Your task to perform on an android device: delete browsing data in the chrome app Image 0: 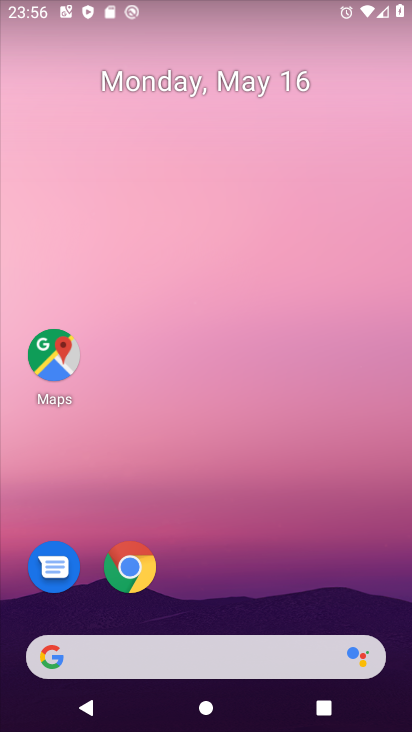
Step 0: click (126, 569)
Your task to perform on an android device: delete browsing data in the chrome app Image 1: 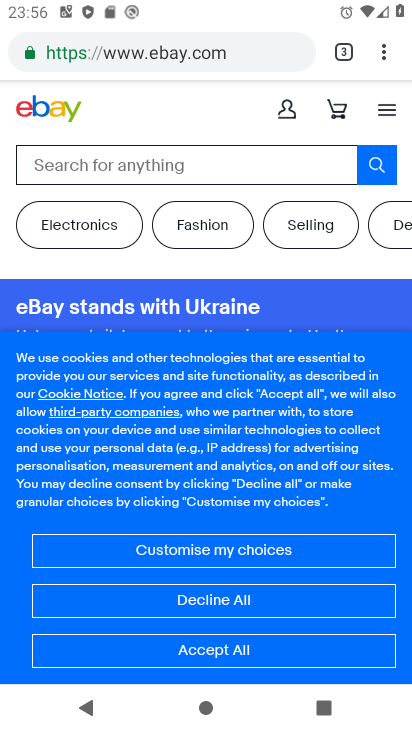
Step 1: click (382, 51)
Your task to perform on an android device: delete browsing data in the chrome app Image 2: 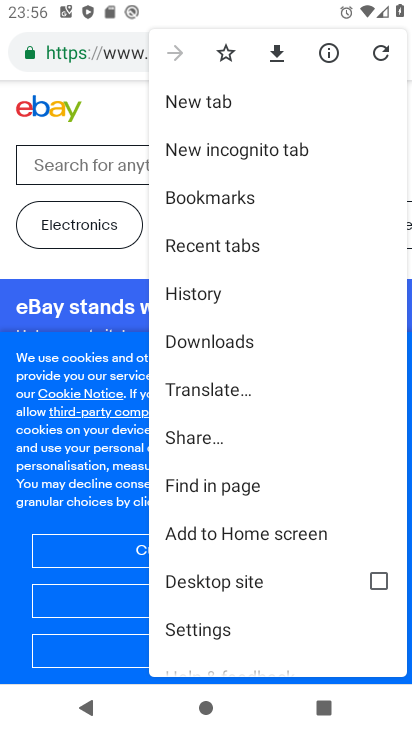
Step 2: click (193, 290)
Your task to perform on an android device: delete browsing data in the chrome app Image 3: 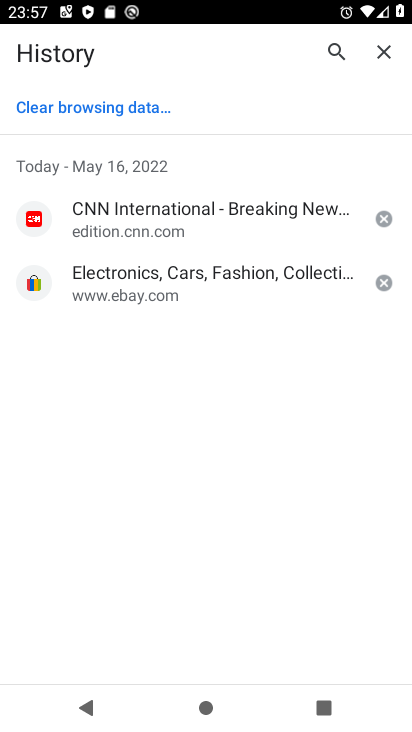
Step 3: click (86, 101)
Your task to perform on an android device: delete browsing data in the chrome app Image 4: 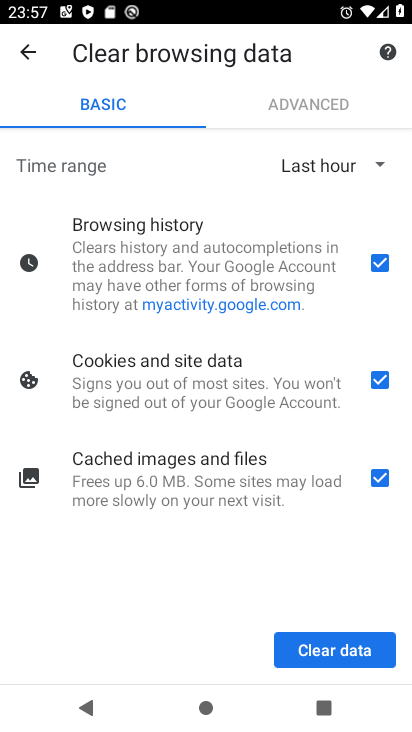
Step 4: click (332, 658)
Your task to perform on an android device: delete browsing data in the chrome app Image 5: 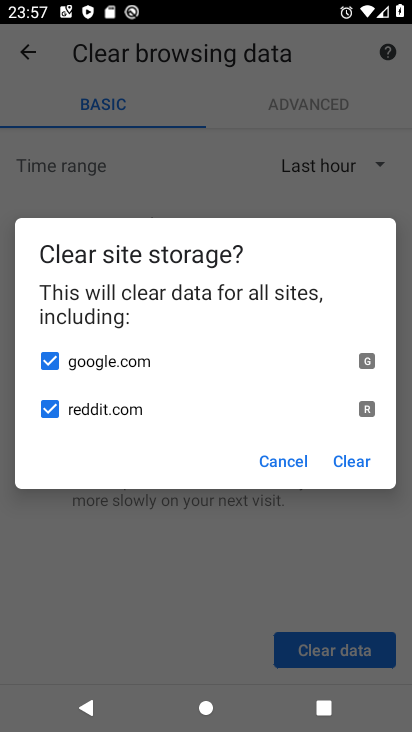
Step 5: click (352, 464)
Your task to perform on an android device: delete browsing data in the chrome app Image 6: 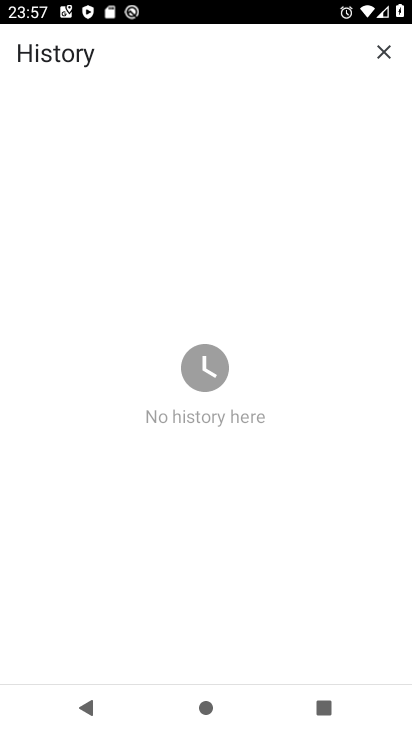
Step 6: task complete